Your task to perform on an android device: What's the weather? Image 0: 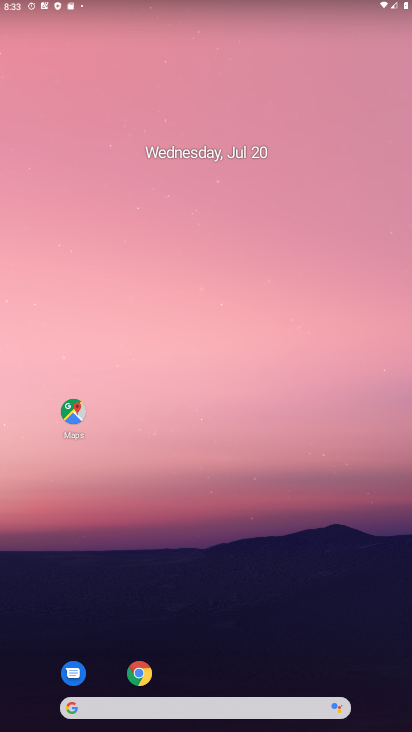
Step 0: drag from (371, 660) to (182, 11)
Your task to perform on an android device: What's the weather? Image 1: 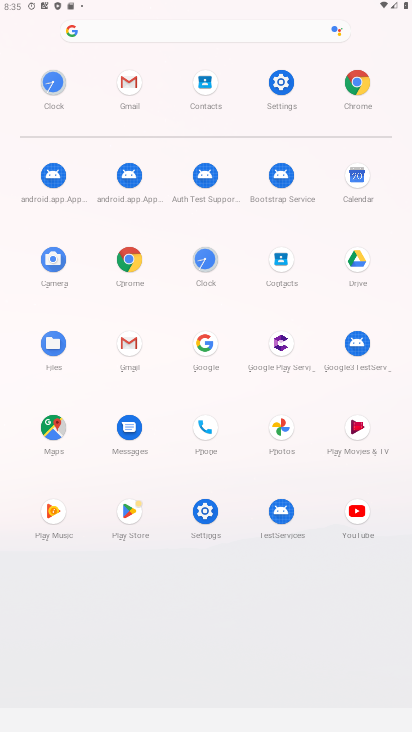
Step 1: click (196, 352)
Your task to perform on an android device: What's the weather? Image 2: 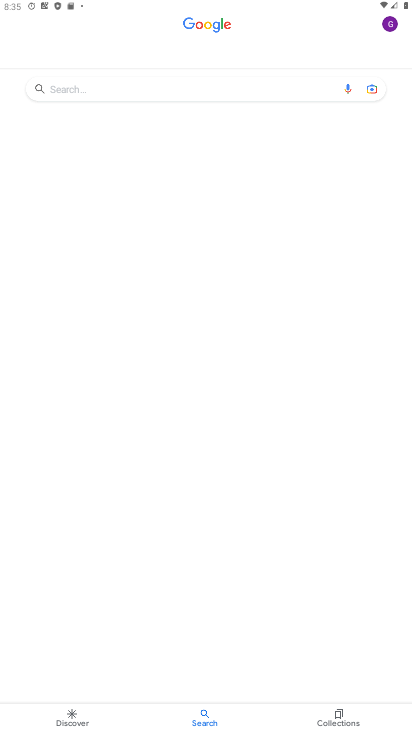
Step 2: click (90, 92)
Your task to perform on an android device: What's the weather? Image 3: 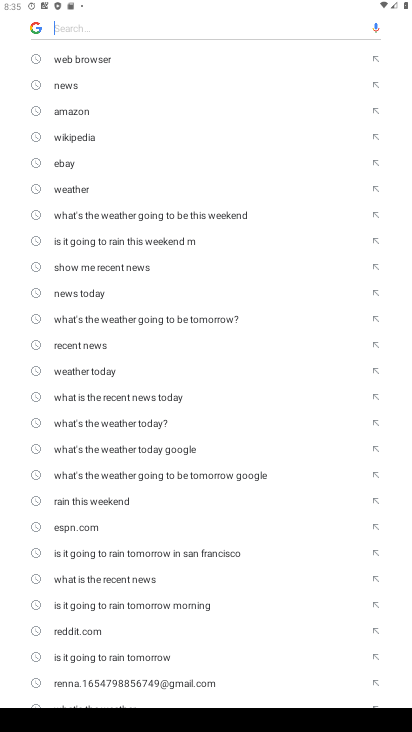
Step 3: click (101, 371)
Your task to perform on an android device: What's the weather? Image 4: 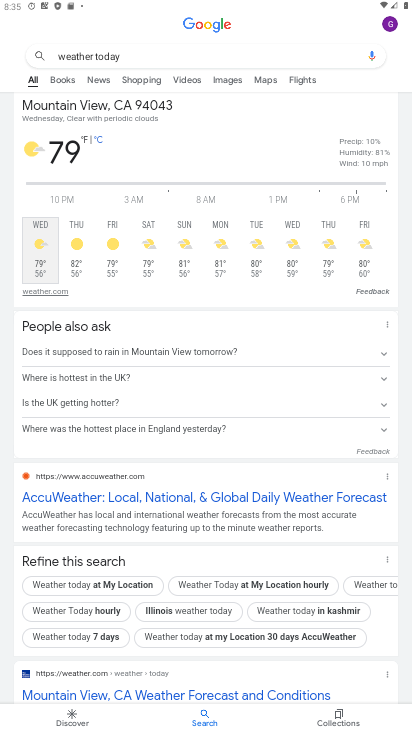
Step 4: task complete